Your task to perform on an android device: Go to battery settings Image 0: 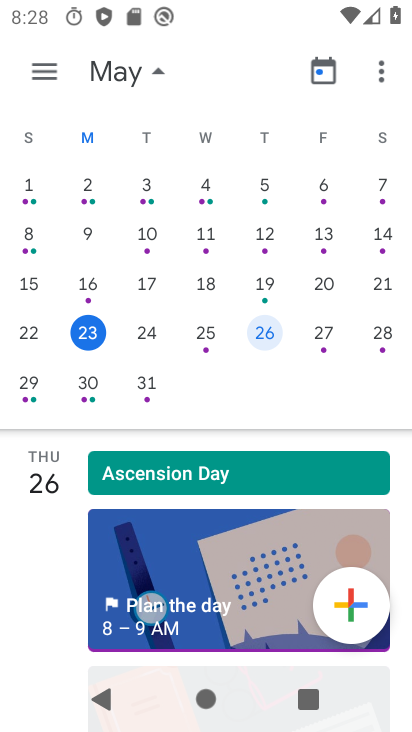
Step 0: press home button
Your task to perform on an android device: Go to battery settings Image 1: 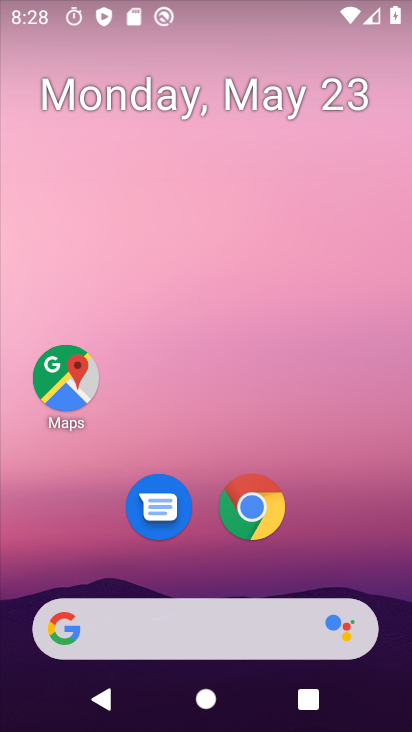
Step 1: drag from (359, 544) to (239, 2)
Your task to perform on an android device: Go to battery settings Image 2: 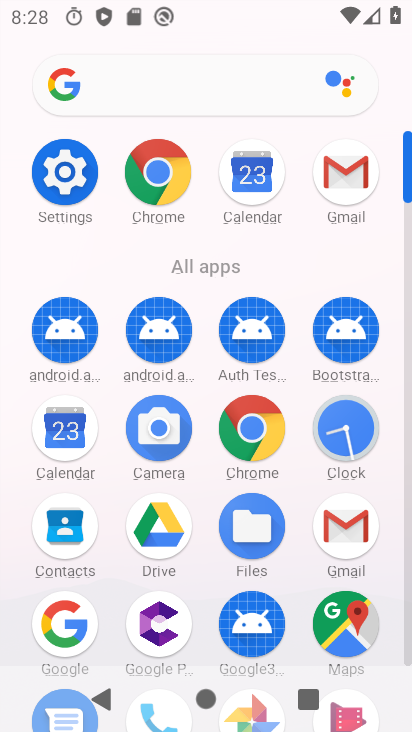
Step 2: click (90, 157)
Your task to perform on an android device: Go to battery settings Image 3: 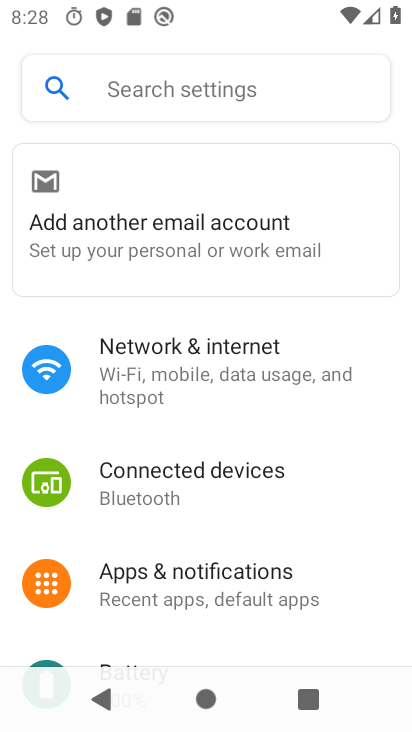
Step 3: drag from (209, 584) to (200, 52)
Your task to perform on an android device: Go to battery settings Image 4: 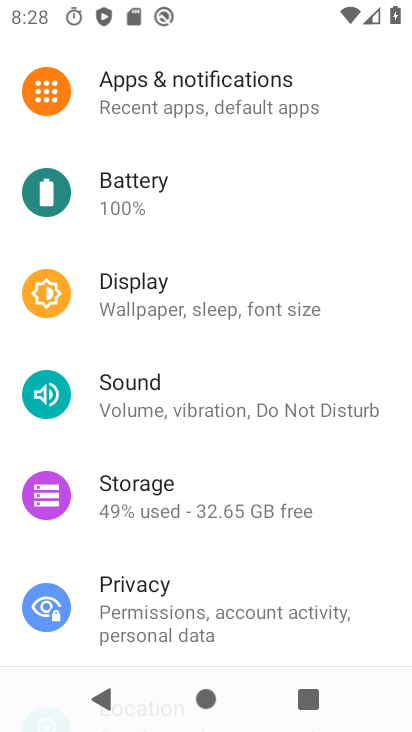
Step 4: drag from (181, 583) to (185, 218)
Your task to perform on an android device: Go to battery settings Image 5: 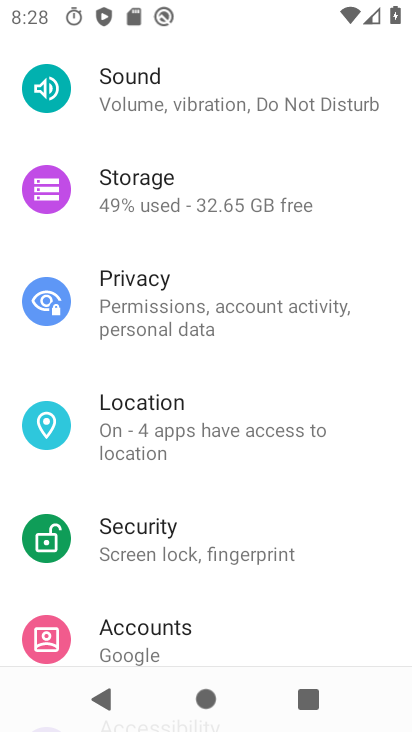
Step 5: drag from (190, 235) to (168, 599)
Your task to perform on an android device: Go to battery settings Image 6: 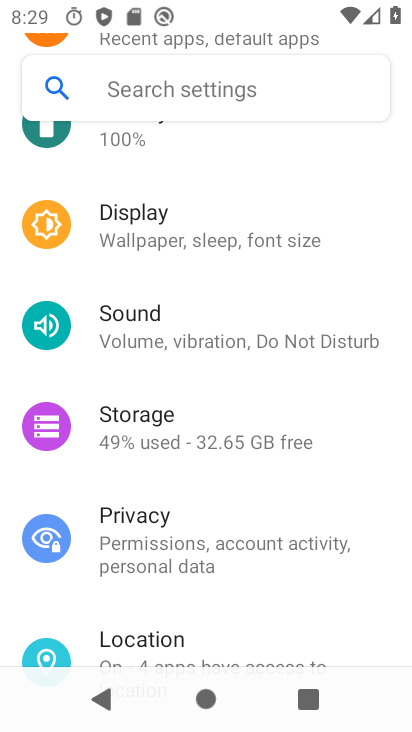
Step 6: drag from (159, 204) to (184, 526)
Your task to perform on an android device: Go to battery settings Image 7: 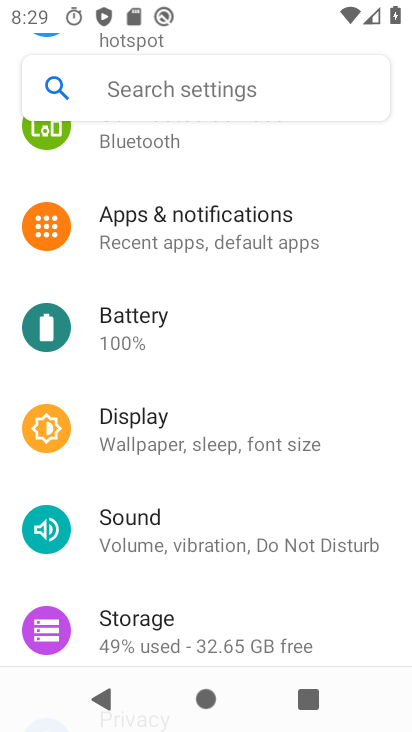
Step 7: click (118, 333)
Your task to perform on an android device: Go to battery settings Image 8: 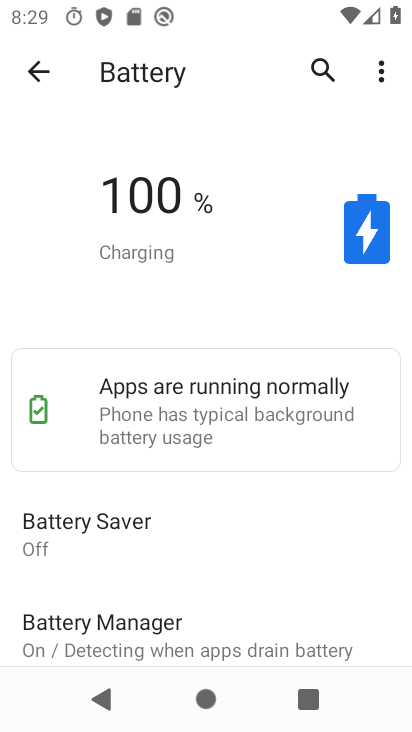
Step 8: task complete